Your task to perform on an android device: open a bookmark in the chrome app Image 0: 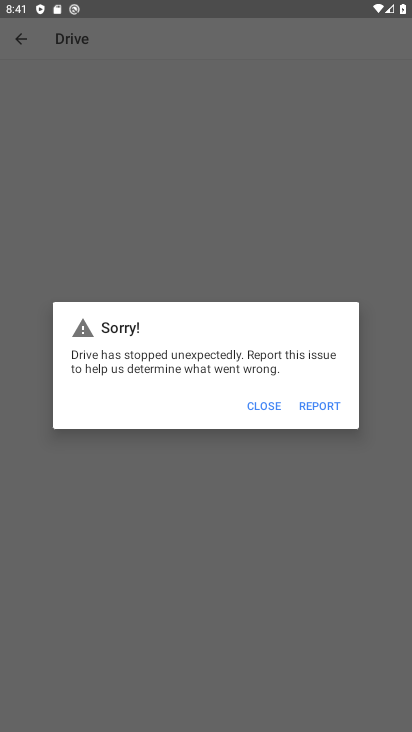
Step 0: click (263, 409)
Your task to perform on an android device: open a bookmark in the chrome app Image 1: 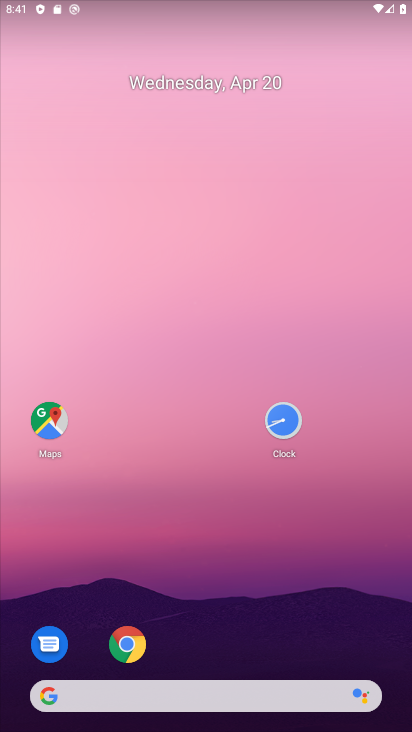
Step 1: drag from (263, 722) to (409, 457)
Your task to perform on an android device: open a bookmark in the chrome app Image 2: 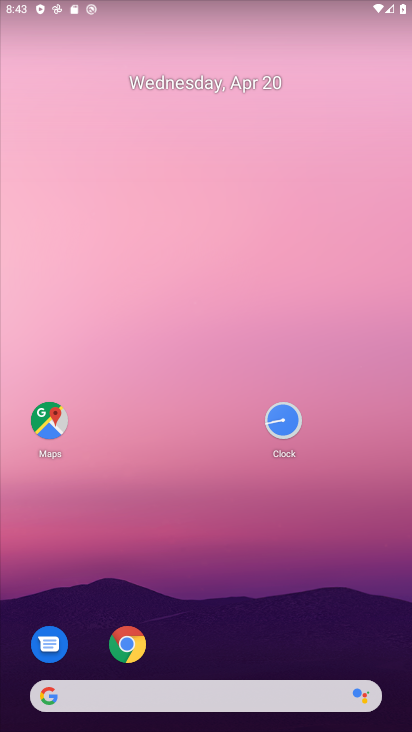
Step 2: drag from (289, 630) to (350, 53)
Your task to perform on an android device: open a bookmark in the chrome app Image 3: 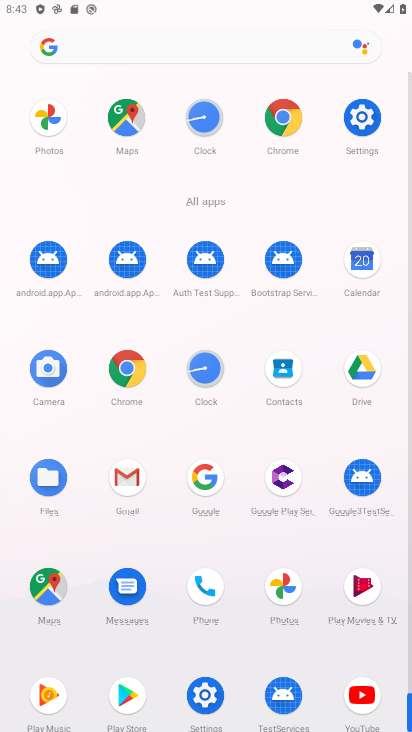
Step 3: click (128, 370)
Your task to perform on an android device: open a bookmark in the chrome app Image 4: 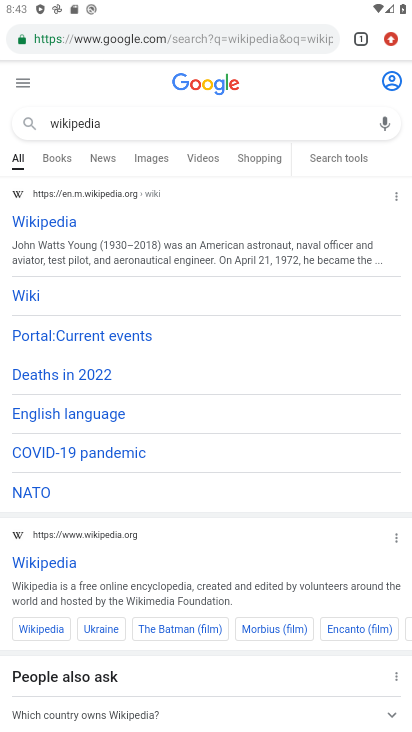
Step 4: task complete